Your task to perform on an android device: Search for vegetarian restaurants on Maps Image 0: 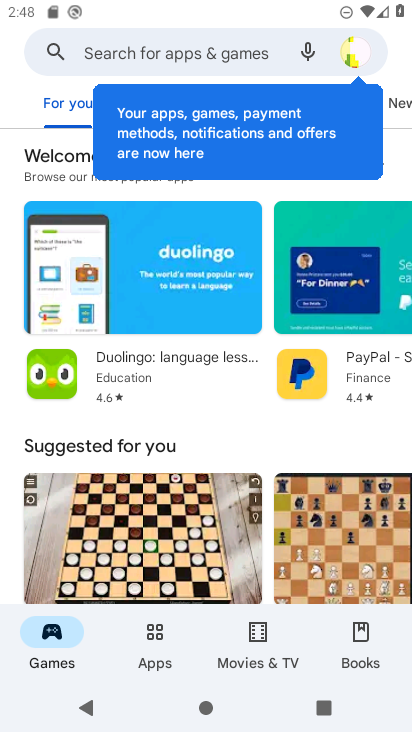
Step 0: press home button
Your task to perform on an android device: Search for vegetarian restaurants on Maps Image 1: 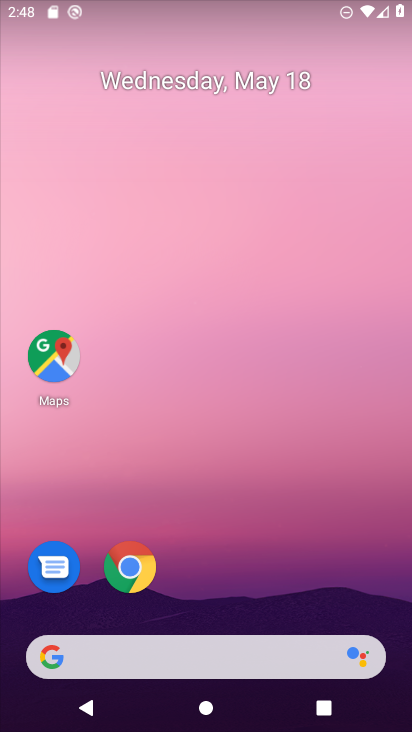
Step 1: click (64, 352)
Your task to perform on an android device: Search for vegetarian restaurants on Maps Image 2: 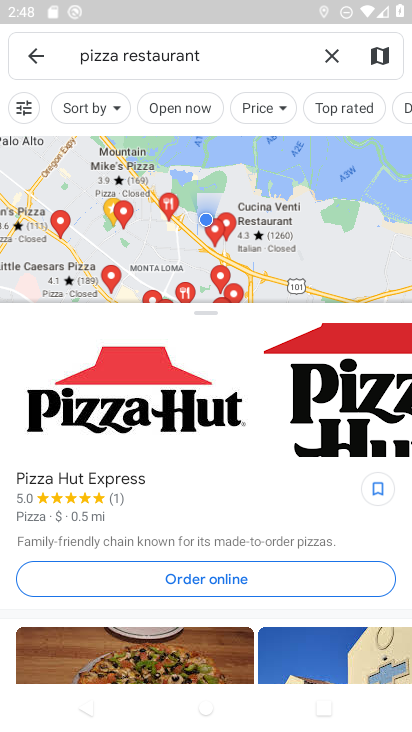
Step 2: click (328, 57)
Your task to perform on an android device: Search for vegetarian restaurants on Maps Image 3: 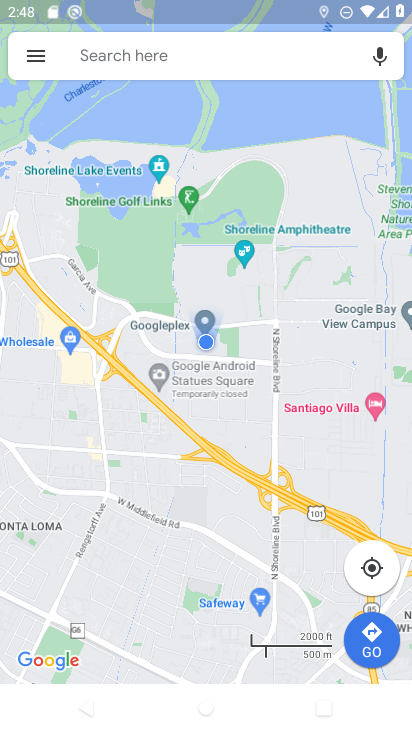
Step 3: click (183, 64)
Your task to perform on an android device: Search for vegetarian restaurants on Maps Image 4: 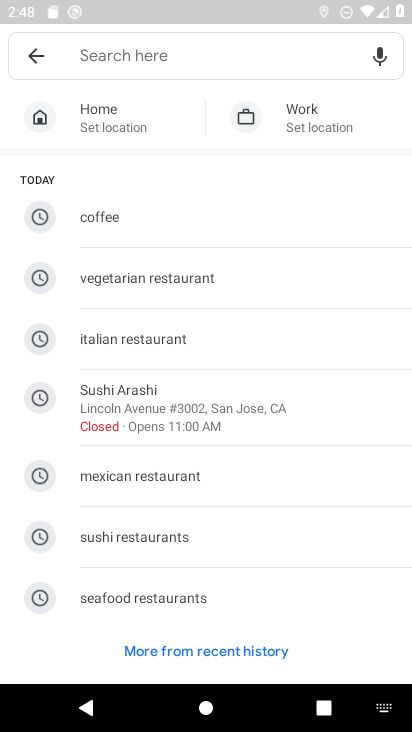
Step 4: type "vegetarian restaurants"
Your task to perform on an android device: Search for vegetarian restaurants on Maps Image 5: 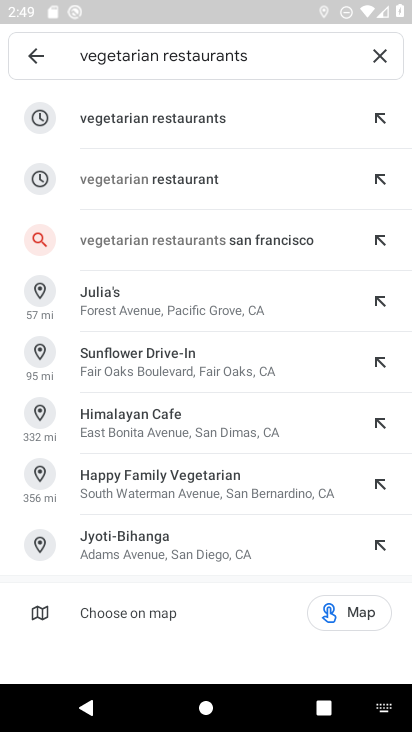
Step 5: click (242, 119)
Your task to perform on an android device: Search for vegetarian restaurants on Maps Image 6: 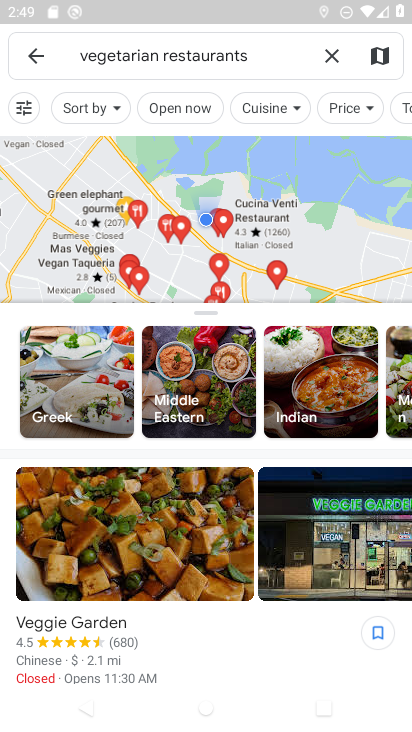
Step 6: task complete